Your task to perform on an android device: What's the weather today? Image 0: 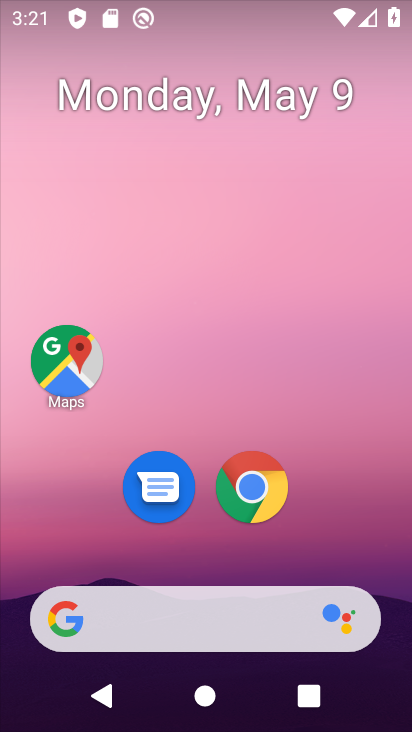
Step 0: drag from (181, 596) to (192, 151)
Your task to perform on an android device: What's the weather today? Image 1: 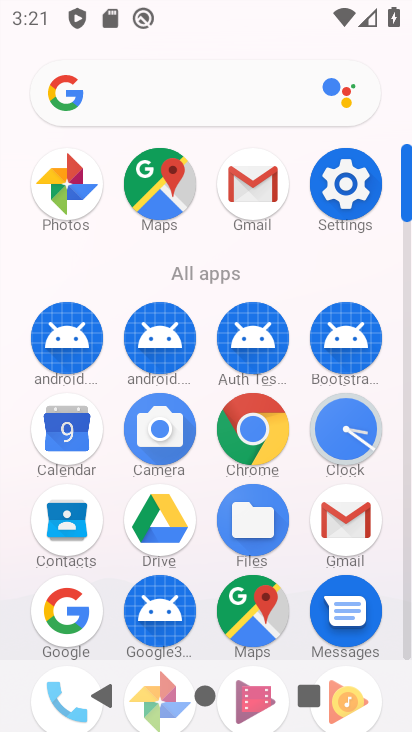
Step 1: click (66, 605)
Your task to perform on an android device: What's the weather today? Image 2: 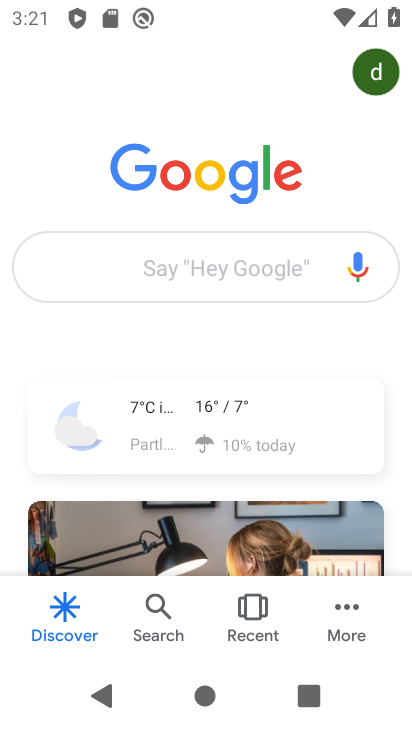
Step 2: click (185, 416)
Your task to perform on an android device: What's the weather today? Image 3: 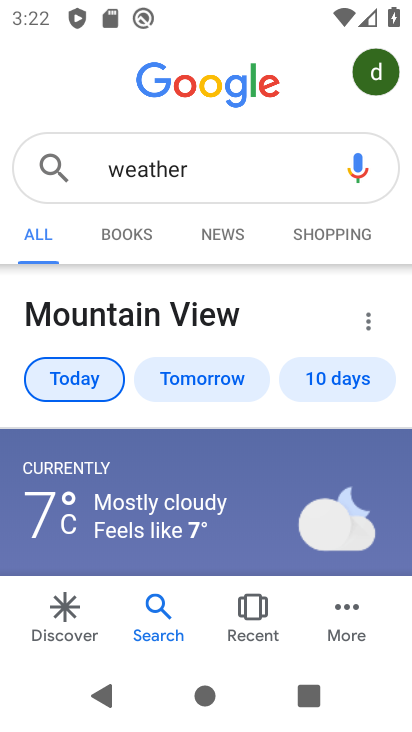
Step 3: task complete